Your task to perform on an android device: make emails show in primary in the gmail app Image 0: 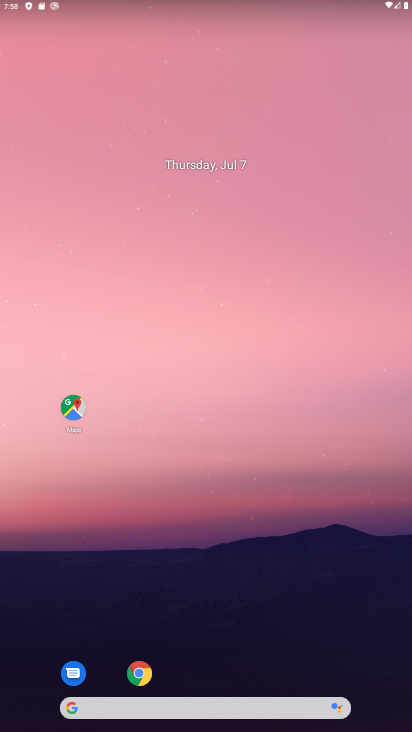
Step 0: drag from (186, 484) to (203, 235)
Your task to perform on an android device: make emails show in primary in the gmail app Image 1: 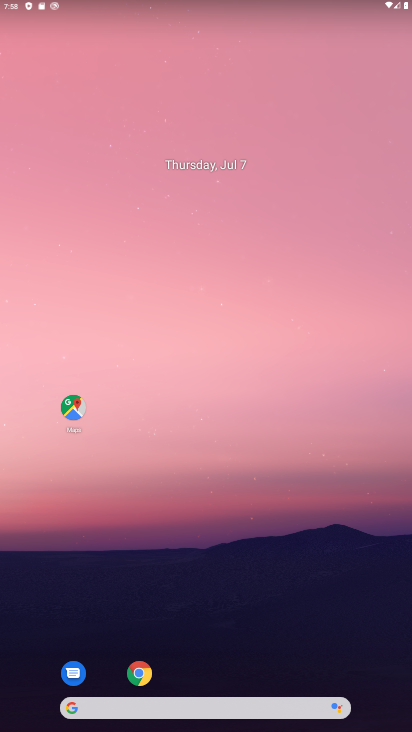
Step 1: drag from (190, 491) to (233, 140)
Your task to perform on an android device: make emails show in primary in the gmail app Image 2: 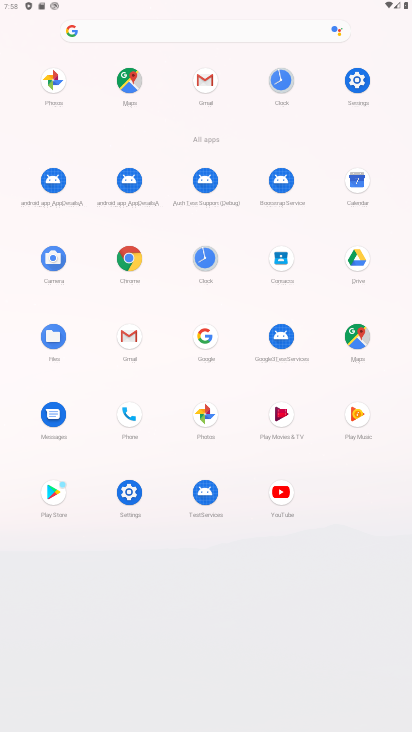
Step 2: click (129, 341)
Your task to perform on an android device: make emails show in primary in the gmail app Image 3: 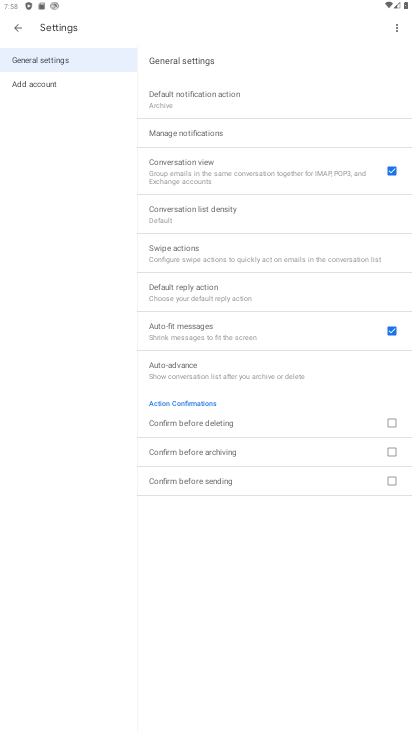
Step 3: click (21, 25)
Your task to perform on an android device: make emails show in primary in the gmail app Image 4: 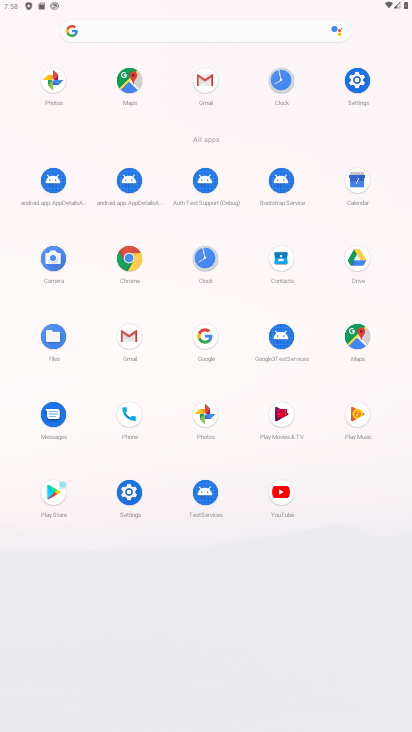
Step 4: click (124, 319)
Your task to perform on an android device: make emails show in primary in the gmail app Image 5: 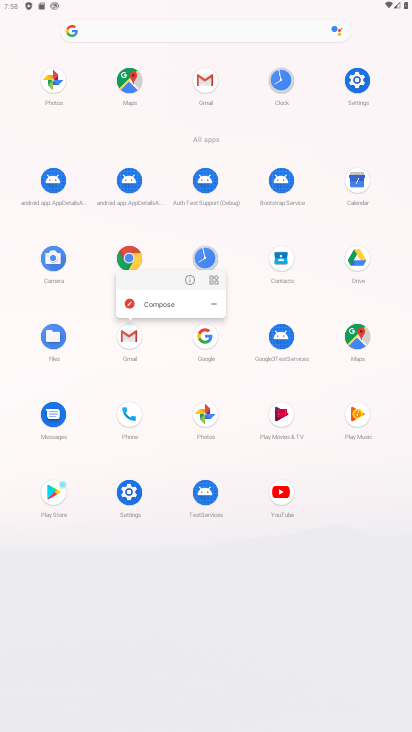
Step 5: click (126, 338)
Your task to perform on an android device: make emails show in primary in the gmail app Image 6: 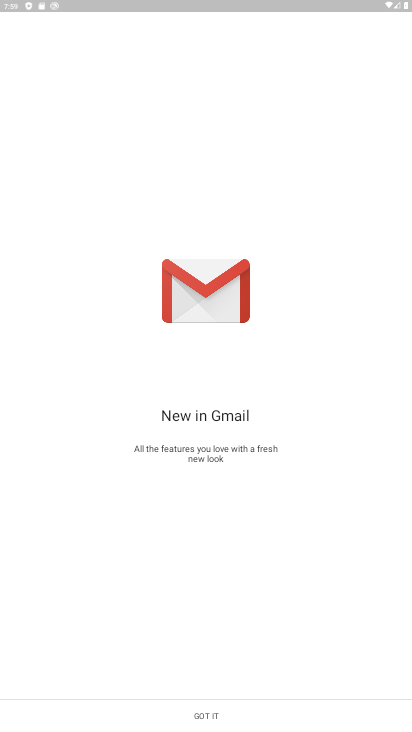
Step 6: click (213, 716)
Your task to perform on an android device: make emails show in primary in the gmail app Image 7: 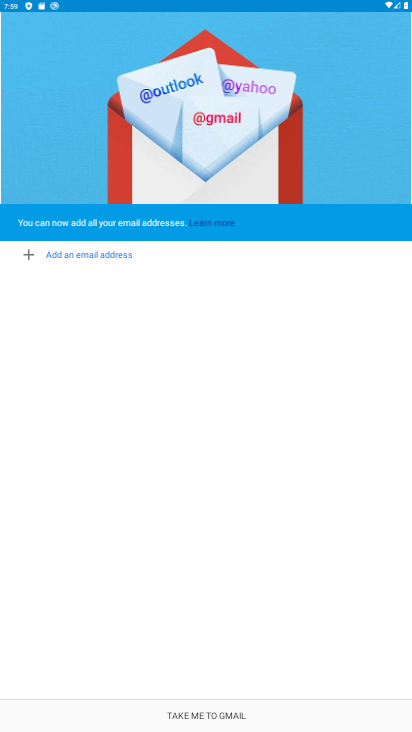
Step 7: click (216, 707)
Your task to perform on an android device: make emails show in primary in the gmail app Image 8: 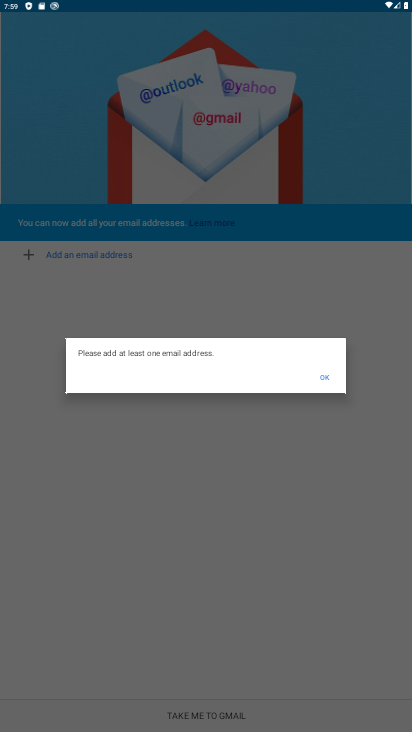
Step 8: click (328, 378)
Your task to perform on an android device: make emails show in primary in the gmail app Image 9: 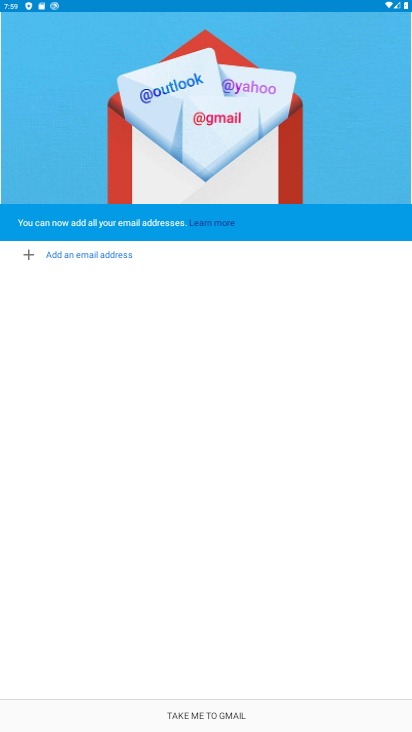
Step 9: task complete